Your task to perform on an android device: turn on notifications settings in the gmail app Image 0: 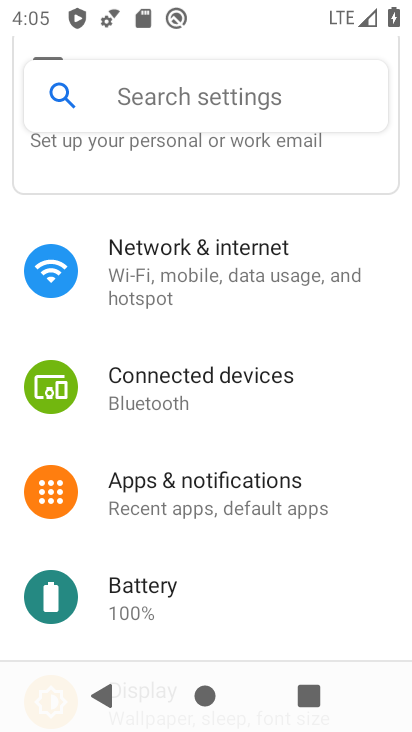
Step 0: press home button
Your task to perform on an android device: turn on notifications settings in the gmail app Image 1: 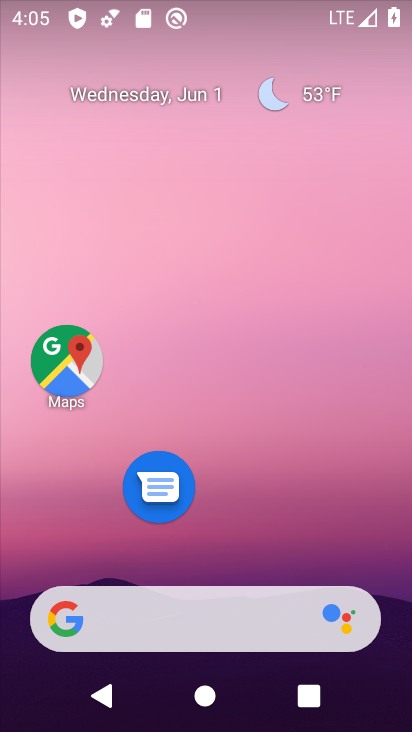
Step 1: drag from (232, 549) to (302, 28)
Your task to perform on an android device: turn on notifications settings in the gmail app Image 2: 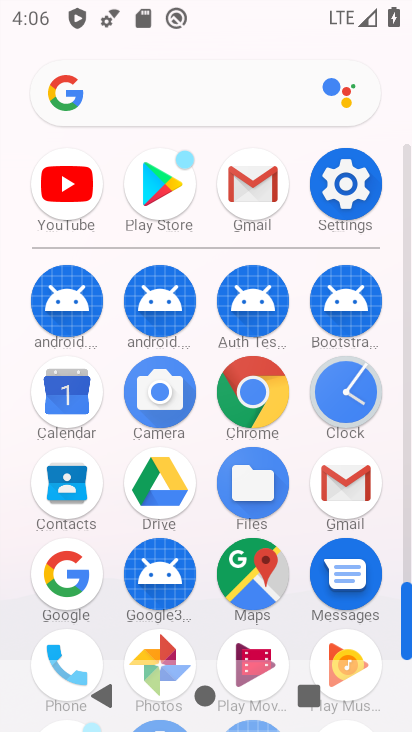
Step 2: click (358, 497)
Your task to perform on an android device: turn on notifications settings in the gmail app Image 3: 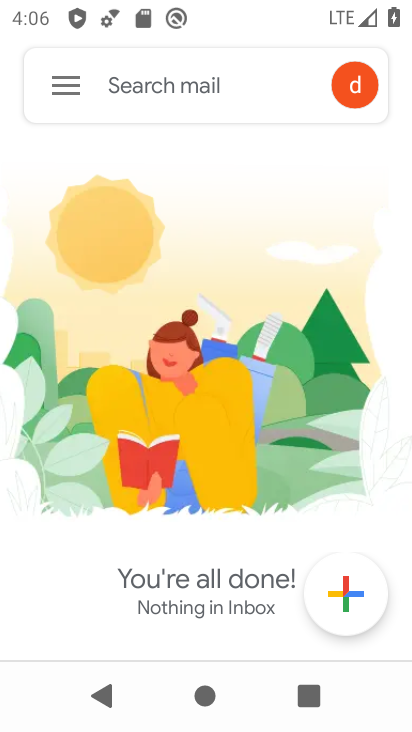
Step 3: click (48, 98)
Your task to perform on an android device: turn on notifications settings in the gmail app Image 4: 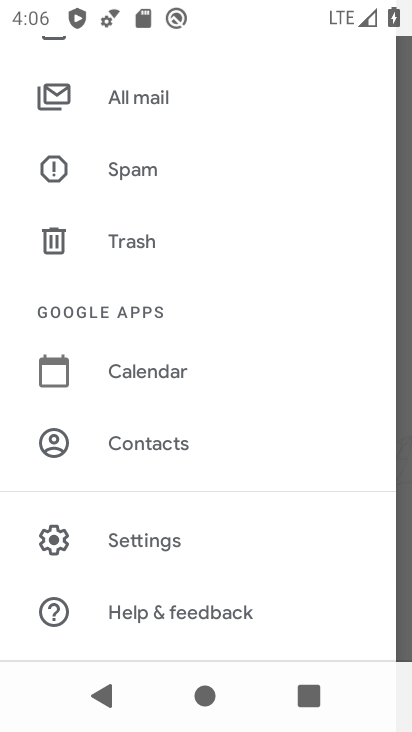
Step 4: click (147, 551)
Your task to perform on an android device: turn on notifications settings in the gmail app Image 5: 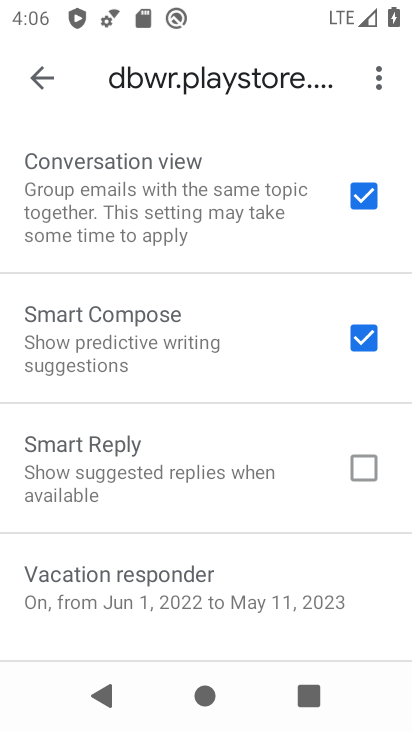
Step 5: click (40, 78)
Your task to perform on an android device: turn on notifications settings in the gmail app Image 6: 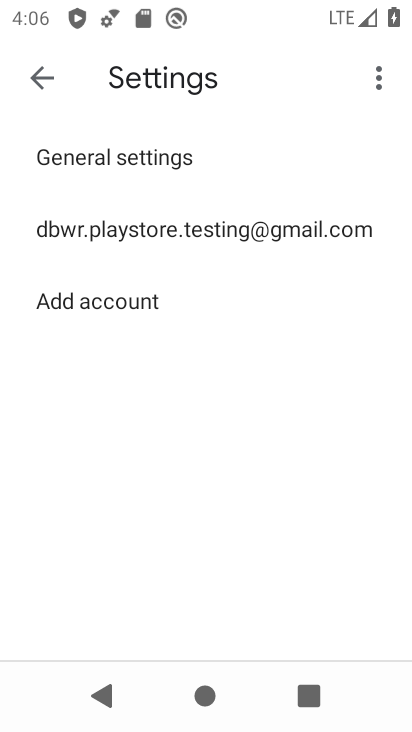
Step 6: click (171, 166)
Your task to perform on an android device: turn on notifications settings in the gmail app Image 7: 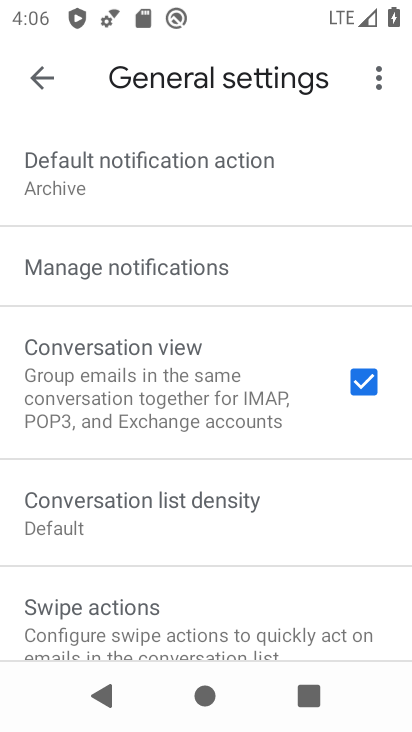
Step 7: click (162, 270)
Your task to perform on an android device: turn on notifications settings in the gmail app Image 8: 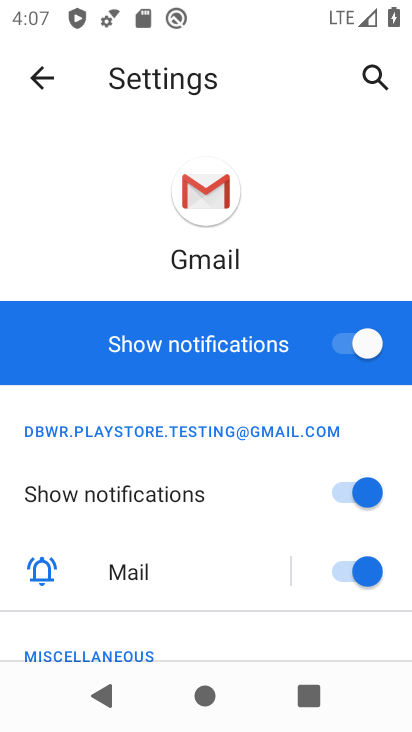
Step 8: task complete